Your task to perform on an android device: Go to CNN.com Image 0: 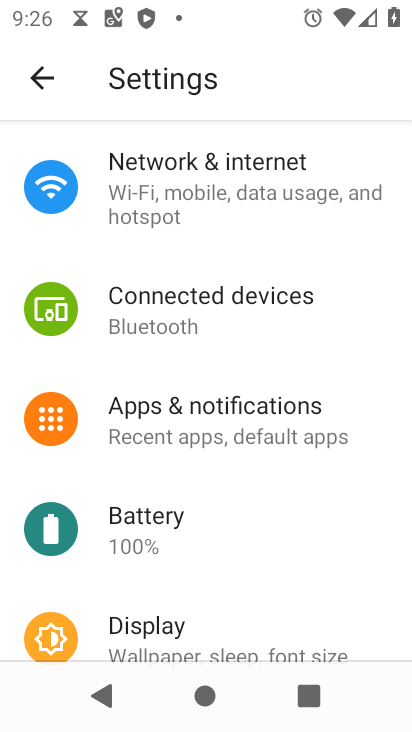
Step 0: press home button
Your task to perform on an android device: Go to CNN.com Image 1: 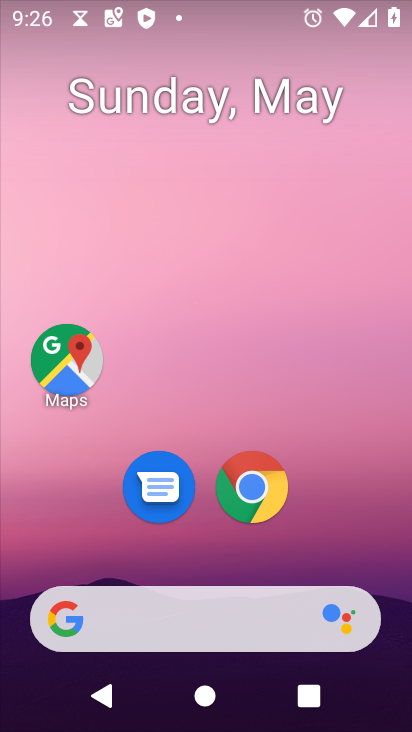
Step 1: click (295, 503)
Your task to perform on an android device: Go to CNN.com Image 2: 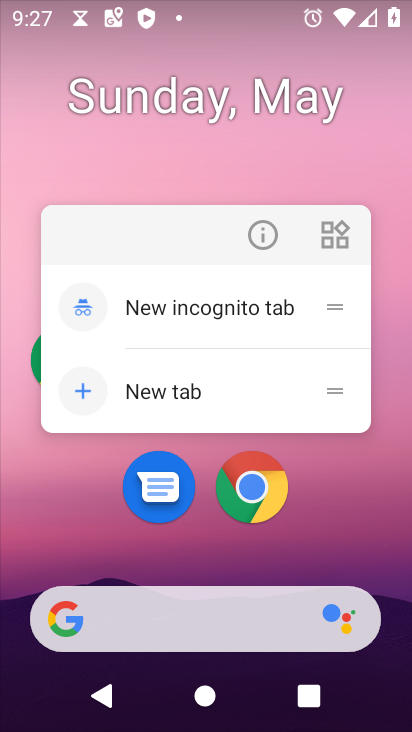
Step 2: click (279, 497)
Your task to perform on an android device: Go to CNN.com Image 3: 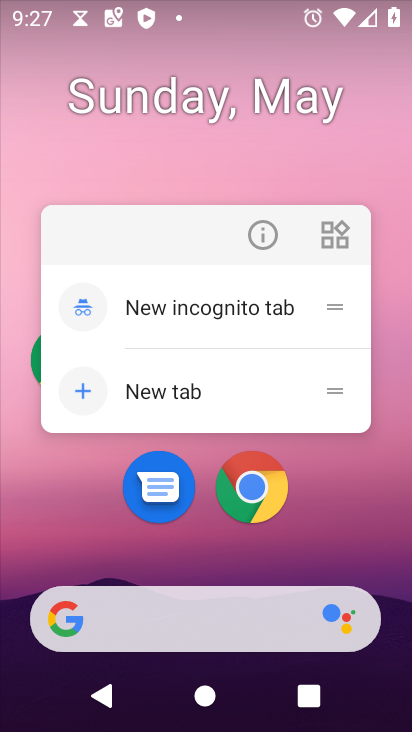
Step 3: click (279, 496)
Your task to perform on an android device: Go to CNN.com Image 4: 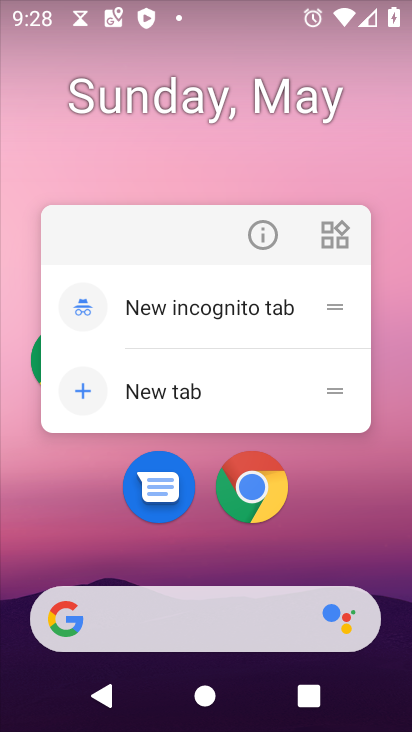
Step 4: click (279, 496)
Your task to perform on an android device: Go to CNN.com Image 5: 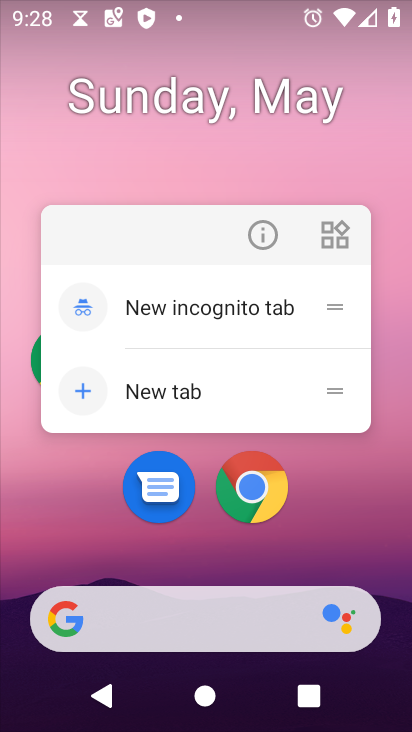
Step 5: click (253, 521)
Your task to perform on an android device: Go to CNN.com Image 6: 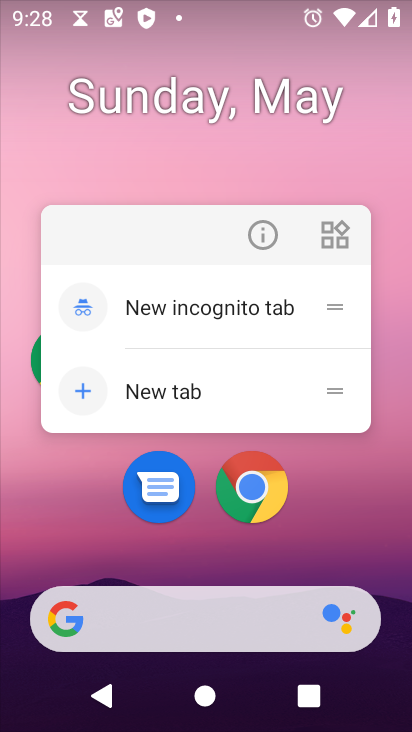
Step 6: drag from (313, 567) to (246, 88)
Your task to perform on an android device: Go to CNN.com Image 7: 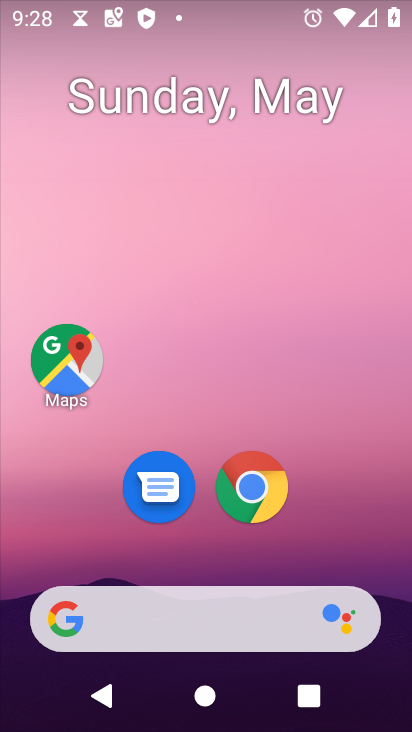
Step 7: drag from (349, 557) to (202, 29)
Your task to perform on an android device: Go to CNN.com Image 8: 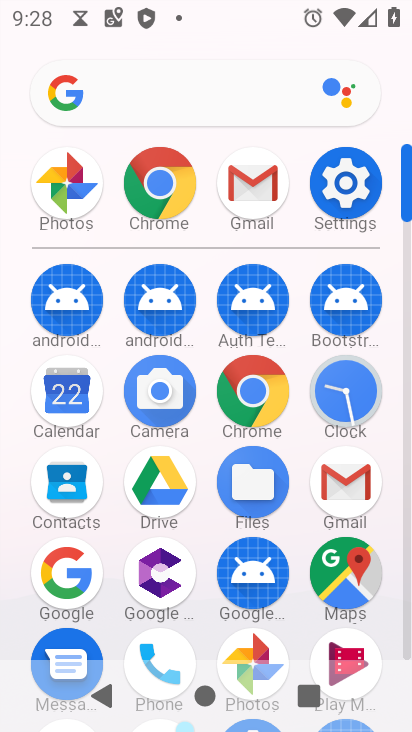
Step 8: click (153, 198)
Your task to perform on an android device: Go to CNN.com Image 9: 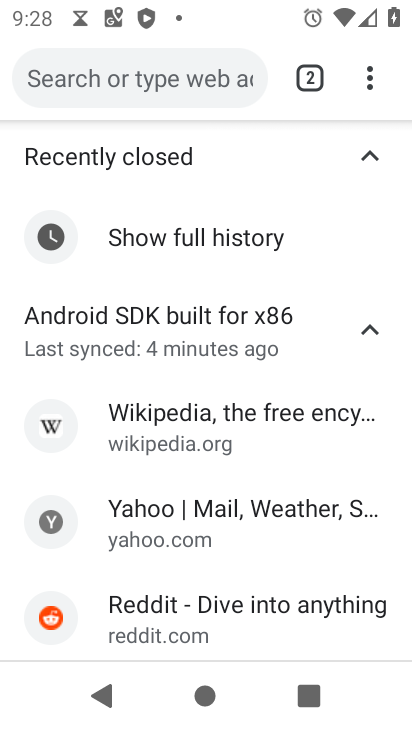
Step 9: click (109, 81)
Your task to perform on an android device: Go to CNN.com Image 10: 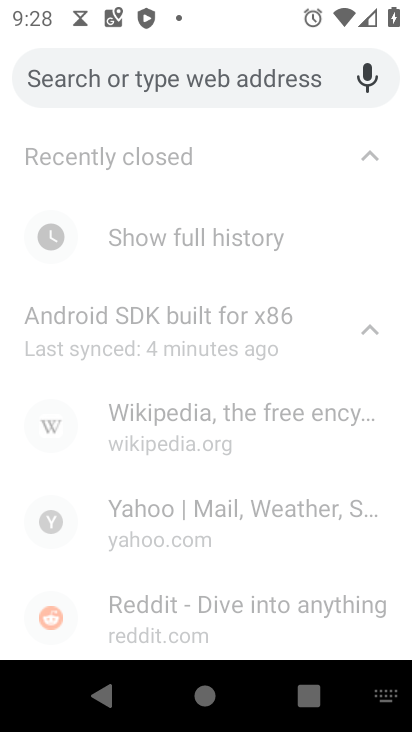
Step 10: type "cnn"
Your task to perform on an android device: Go to CNN.com Image 11: 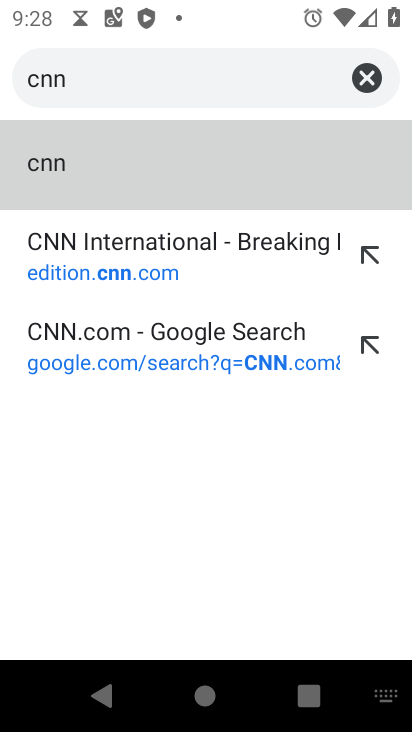
Step 11: click (89, 245)
Your task to perform on an android device: Go to CNN.com Image 12: 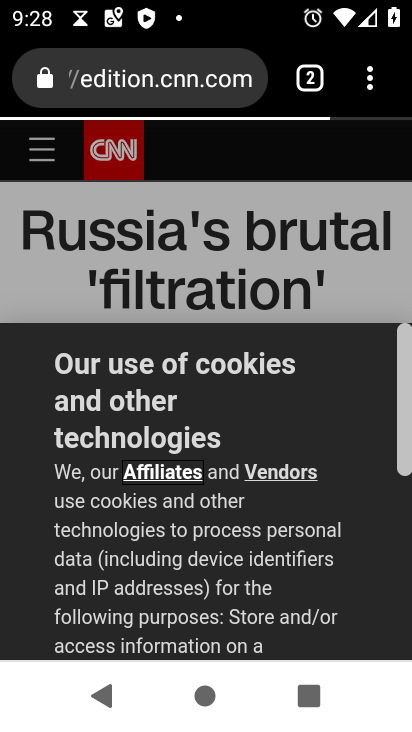
Step 12: task complete